Your task to perform on an android device: turn off wifi Image 0: 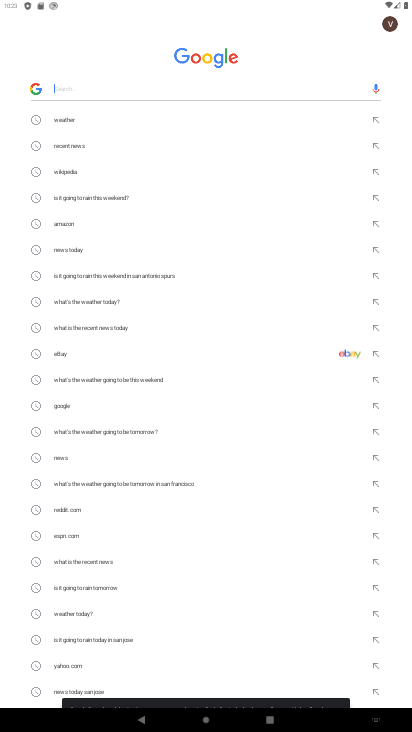
Step 0: press home button
Your task to perform on an android device: turn off wifi Image 1: 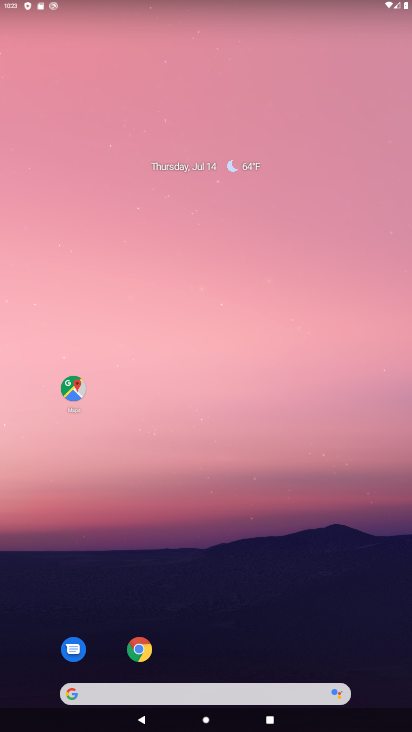
Step 1: drag from (292, 553) to (315, 29)
Your task to perform on an android device: turn off wifi Image 2: 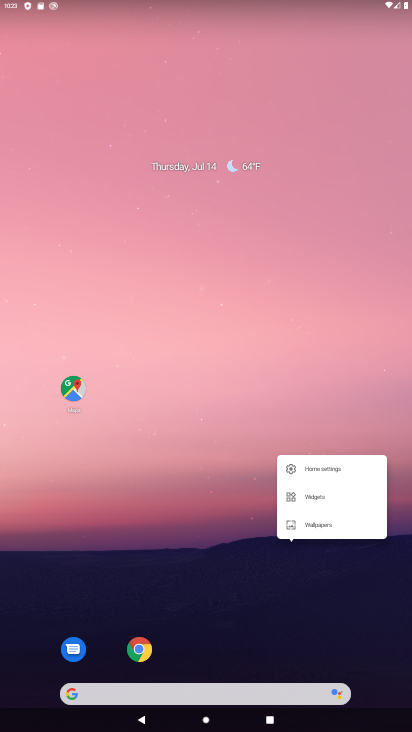
Step 2: click (189, 268)
Your task to perform on an android device: turn off wifi Image 3: 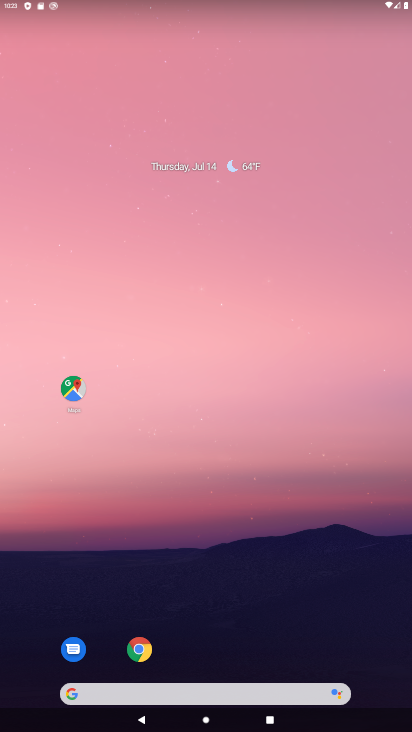
Step 3: drag from (338, 6) to (269, 658)
Your task to perform on an android device: turn off wifi Image 4: 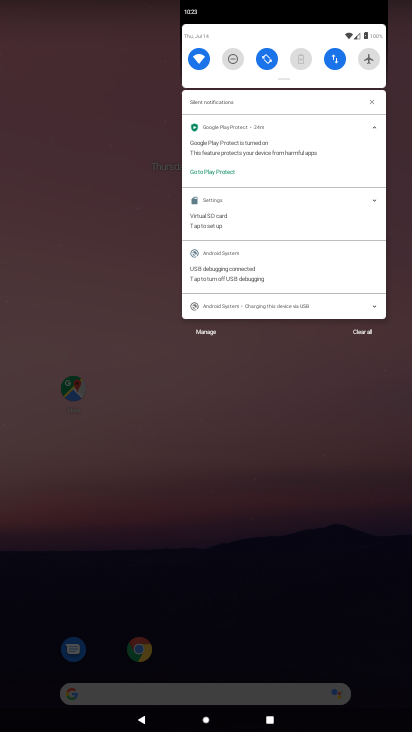
Step 4: click (190, 63)
Your task to perform on an android device: turn off wifi Image 5: 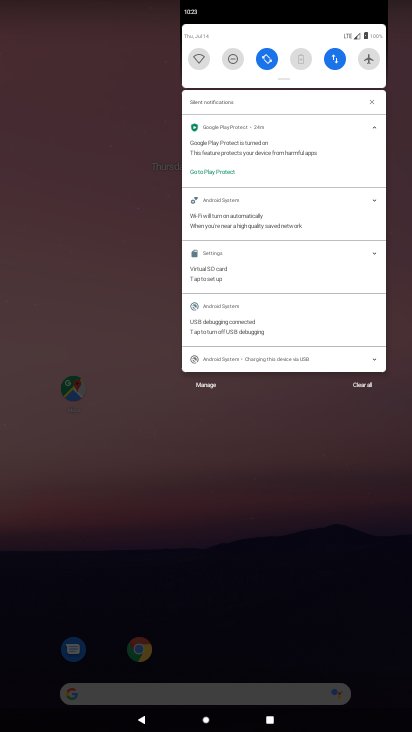
Step 5: task complete